Your task to perform on an android device: change timer sound Image 0: 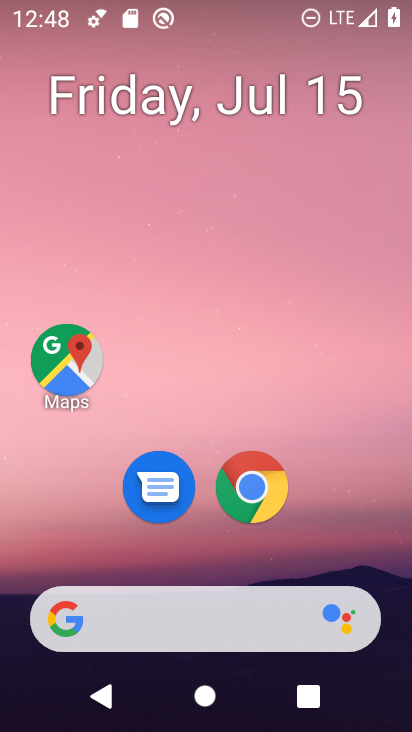
Step 0: drag from (233, 602) to (233, 42)
Your task to perform on an android device: change timer sound Image 1: 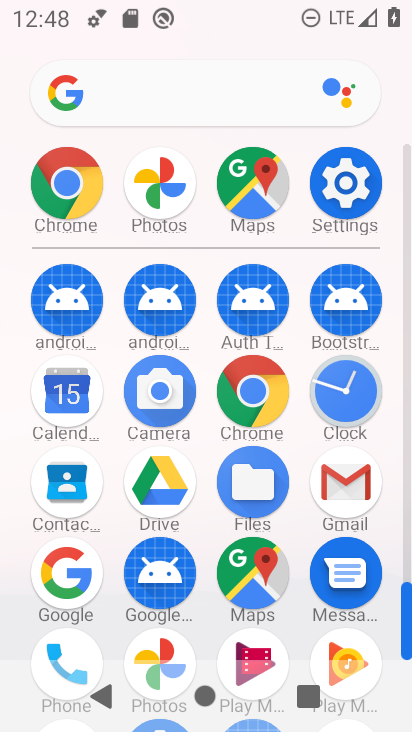
Step 1: drag from (259, 499) to (281, 271)
Your task to perform on an android device: change timer sound Image 2: 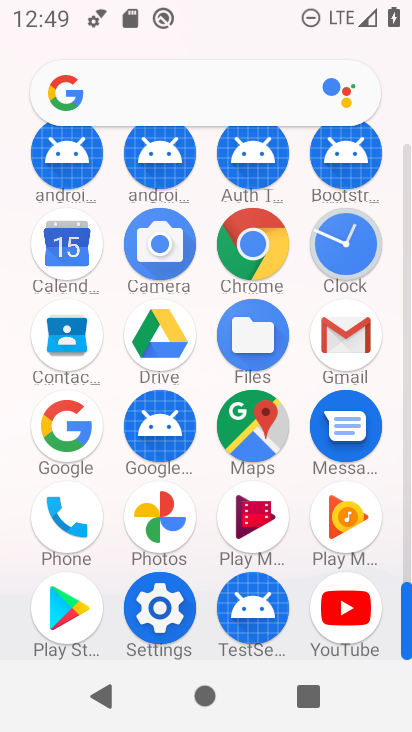
Step 2: click (349, 262)
Your task to perform on an android device: change timer sound Image 3: 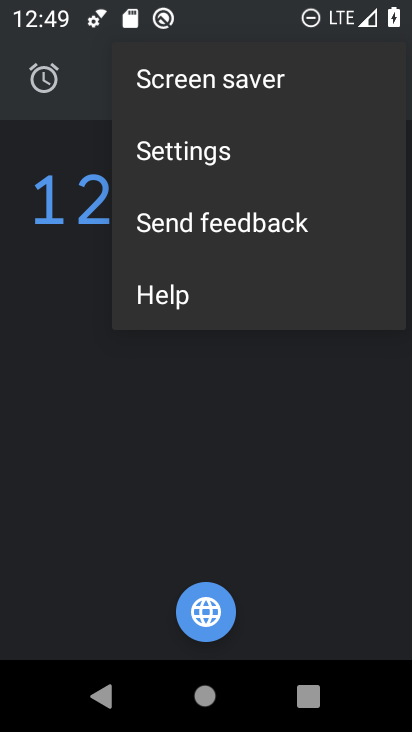
Step 3: click (223, 165)
Your task to perform on an android device: change timer sound Image 4: 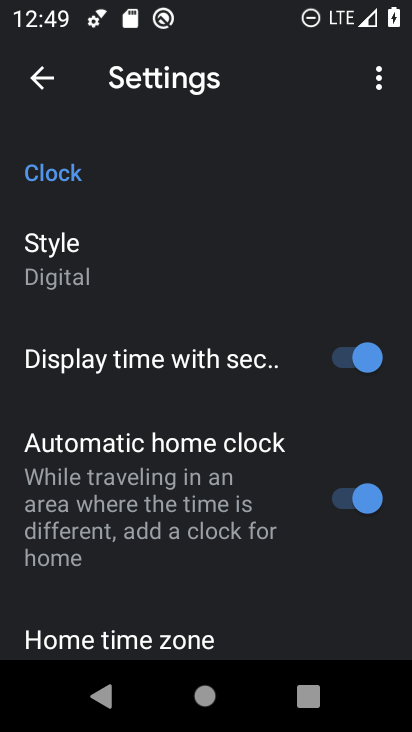
Step 4: drag from (235, 505) to (269, 194)
Your task to perform on an android device: change timer sound Image 5: 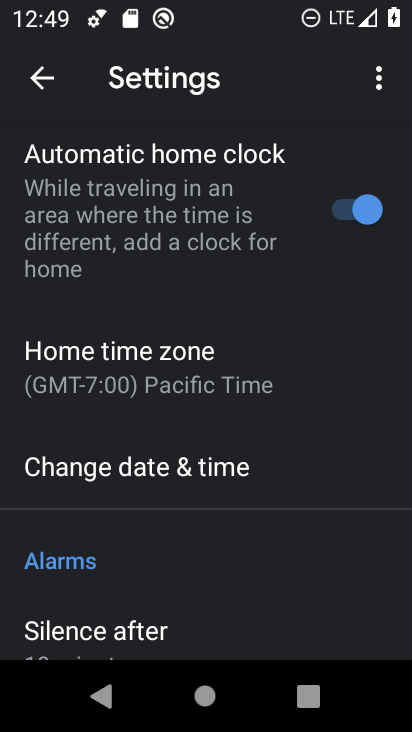
Step 5: drag from (202, 576) to (205, 343)
Your task to perform on an android device: change timer sound Image 6: 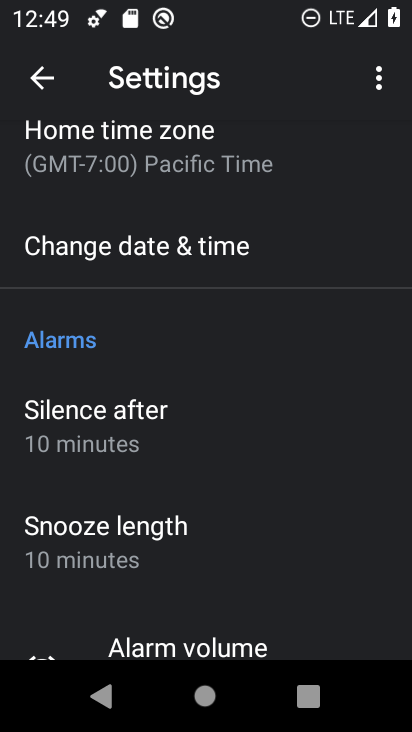
Step 6: drag from (262, 616) to (243, 305)
Your task to perform on an android device: change timer sound Image 7: 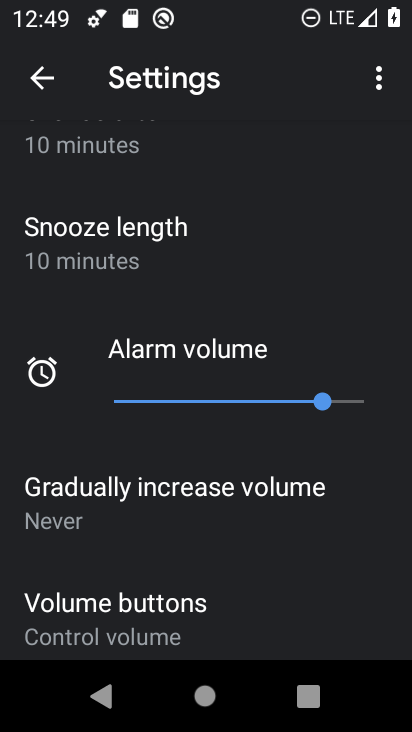
Step 7: drag from (254, 566) to (280, 200)
Your task to perform on an android device: change timer sound Image 8: 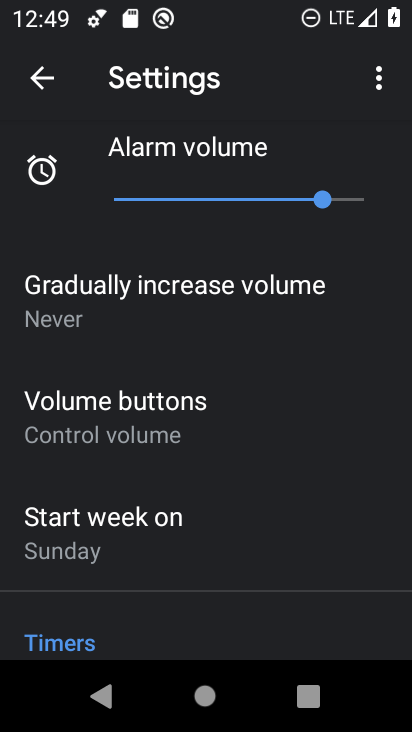
Step 8: drag from (207, 581) to (266, 293)
Your task to perform on an android device: change timer sound Image 9: 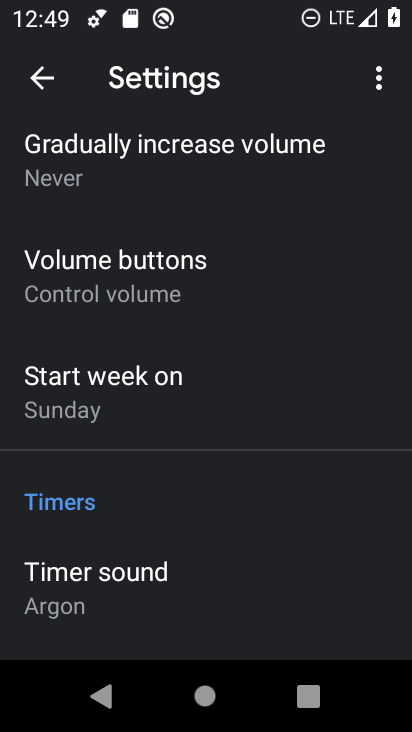
Step 9: click (163, 600)
Your task to perform on an android device: change timer sound Image 10: 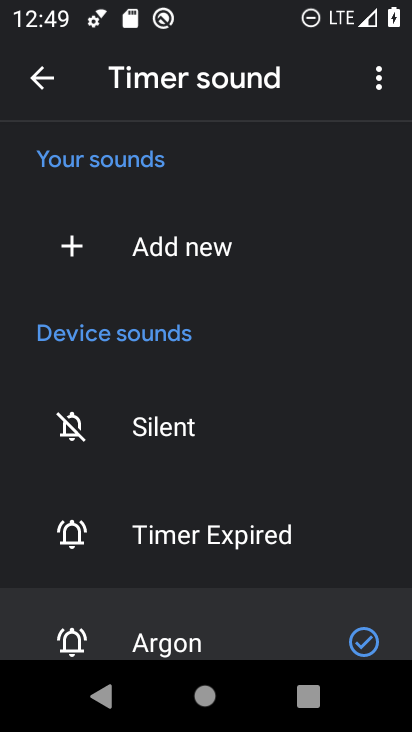
Step 10: click (196, 533)
Your task to perform on an android device: change timer sound Image 11: 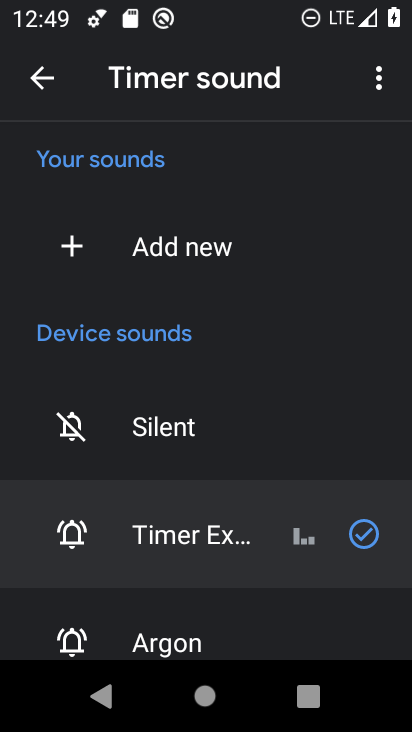
Step 11: task complete